Your task to perform on an android device: turn smart compose on in the gmail app Image 0: 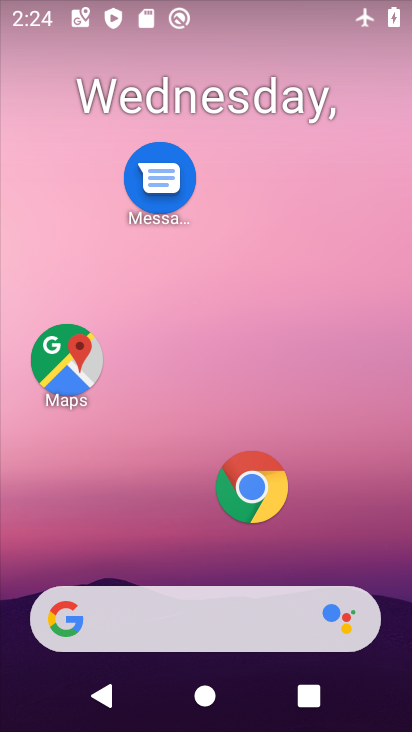
Step 0: drag from (246, 226) to (253, 148)
Your task to perform on an android device: turn smart compose on in the gmail app Image 1: 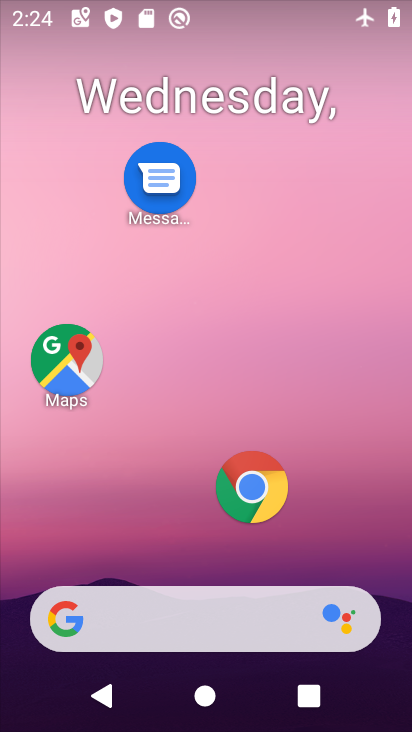
Step 1: drag from (204, 540) to (209, 125)
Your task to perform on an android device: turn smart compose on in the gmail app Image 2: 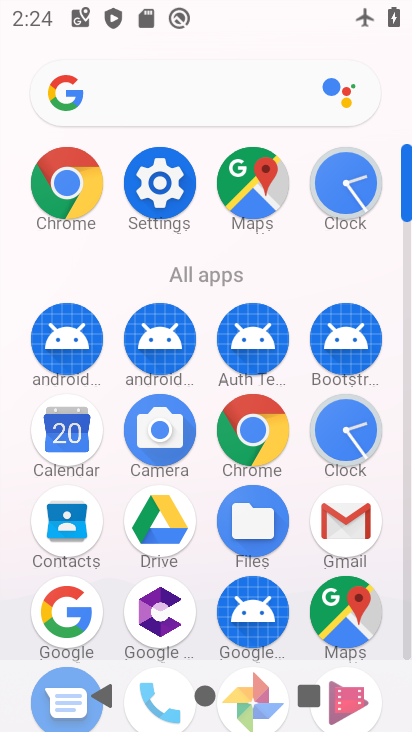
Step 2: click (328, 530)
Your task to perform on an android device: turn smart compose on in the gmail app Image 3: 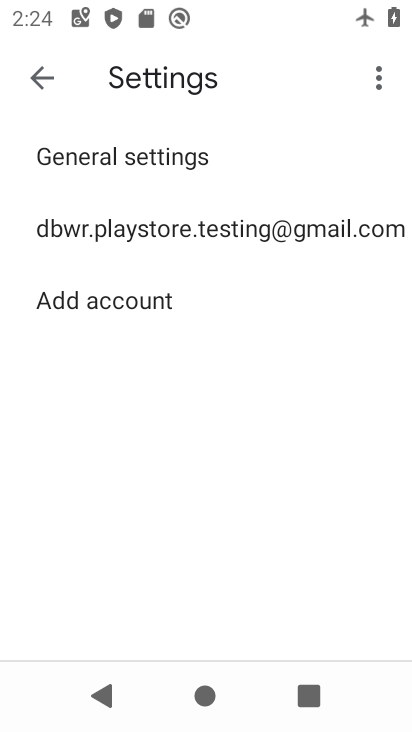
Step 3: click (223, 233)
Your task to perform on an android device: turn smart compose on in the gmail app Image 4: 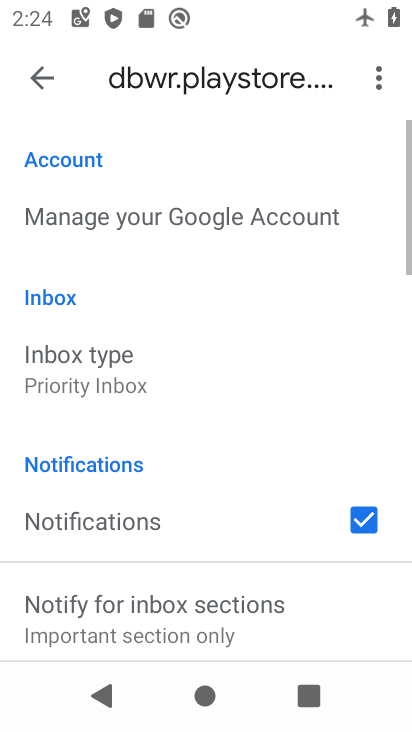
Step 4: task complete